Your task to perform on an android device: move an email to a new category in the gmail app Image 0: 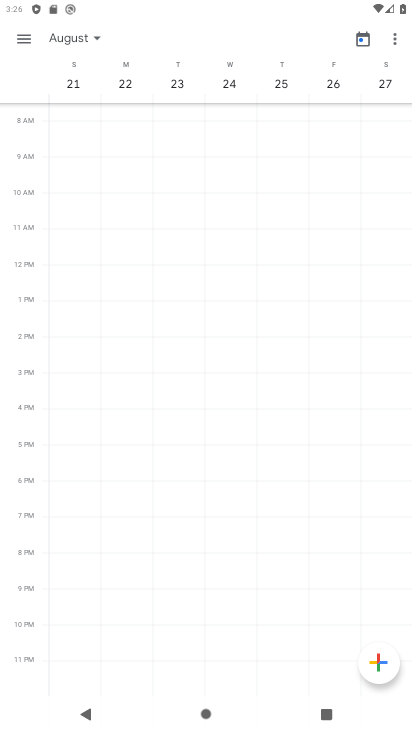
Step 0: press home button
Your task to perform on an android device: move an email to a new category in the gmail app Image 1: 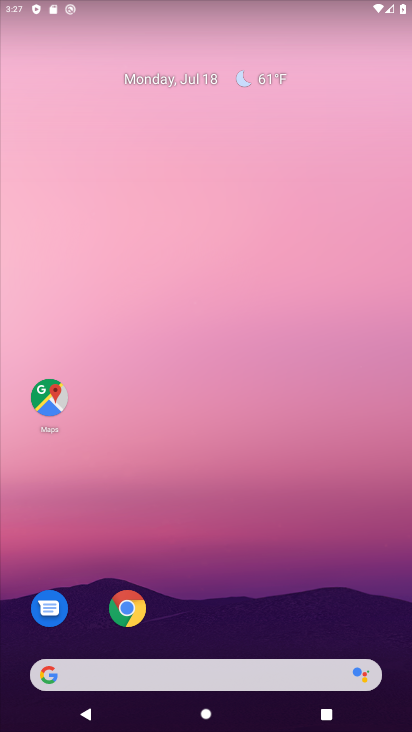
Step 1: drag from (282, 621) to (248, 61)
Your task to perform on an android device: move an email to a new category in the gmail app Image 2: 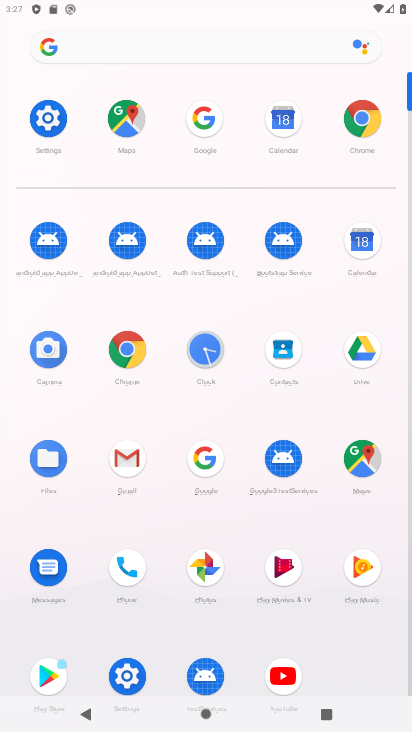
Step 2: click (106, 452)
Your task to perform on an android device: move an email to a new category in the gmail app Image 3: 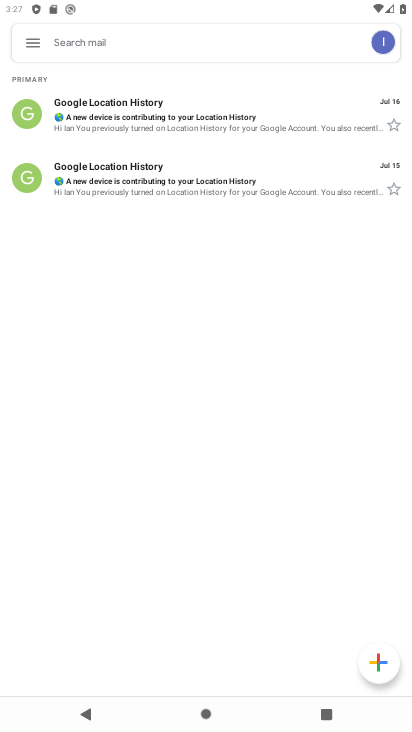
Step 3: click (223, 117)
Your task to perform on an android device: move an email to a new category in the gmail app Image 4: 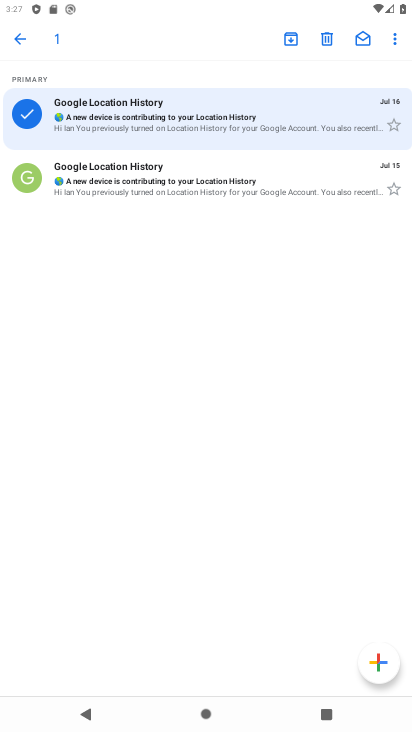
Step 4: click (398, 42)
Your task to perform on an android device: move an email to a new category in the gmail app Image 5: 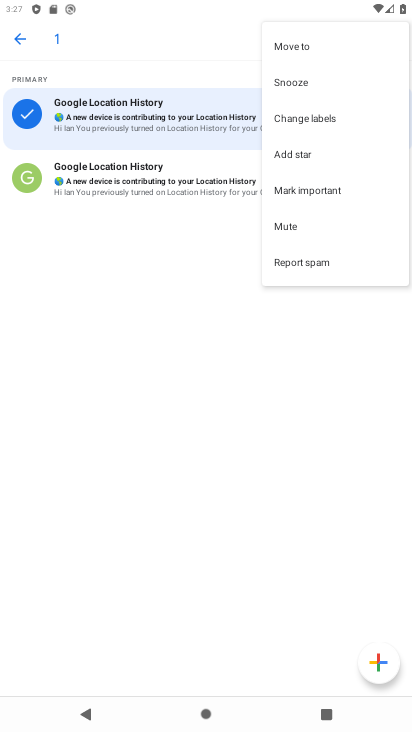
Step 5: click (297, 49)
Your task to perform on an android device: move an email to a new category in the gmail app Image 6: 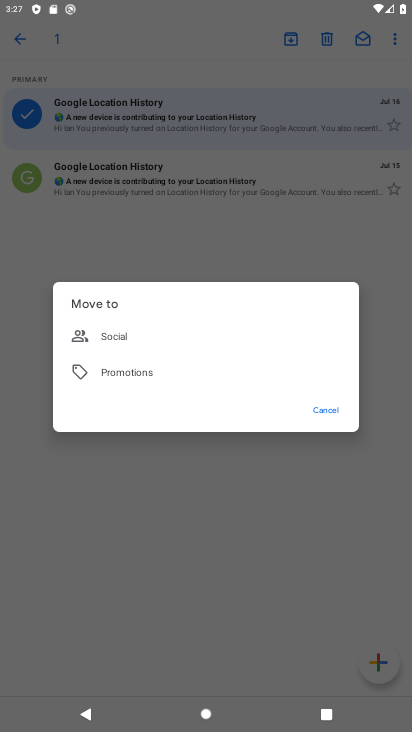
Step 6: click (115, 332)
Your task to perform on an android device: move an email to a new category in the gmail app Image 7: 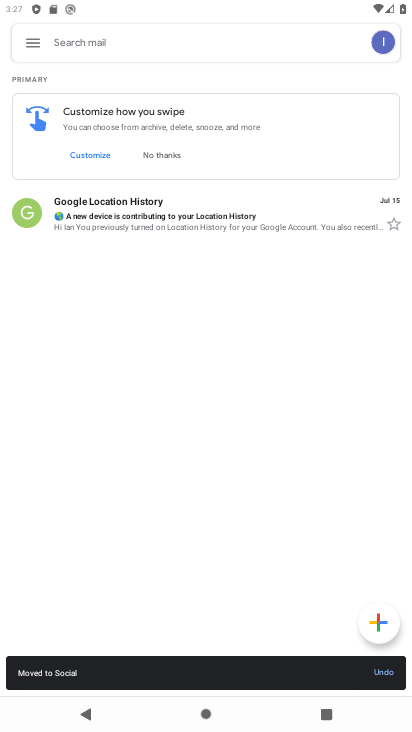
Step 7: task complete